Your task to perform on an android device: Go to CNN.com Image 0: 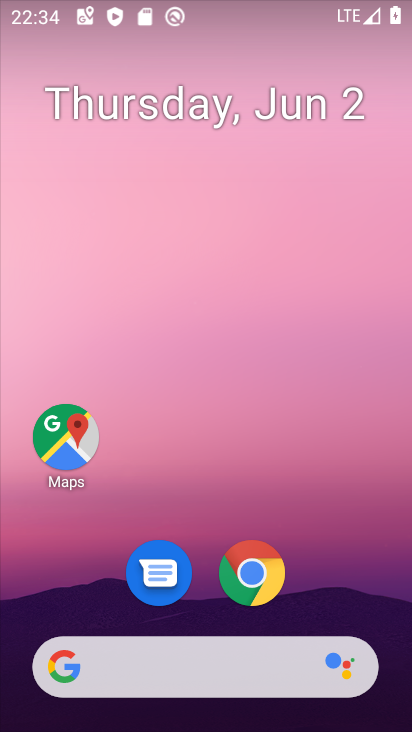
Step 0: click (241, 588)
Your task to perform on an android device: Go to CNN.com Image 1: 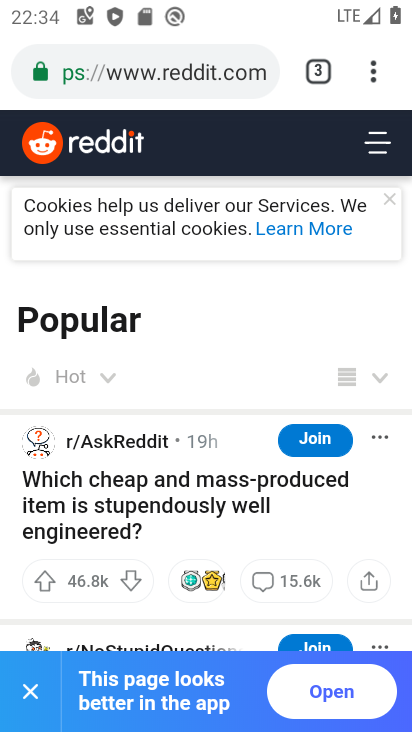
Step 1: click (322, 68)
Your task to perform on an android device: Go to CNN.com Image 2: 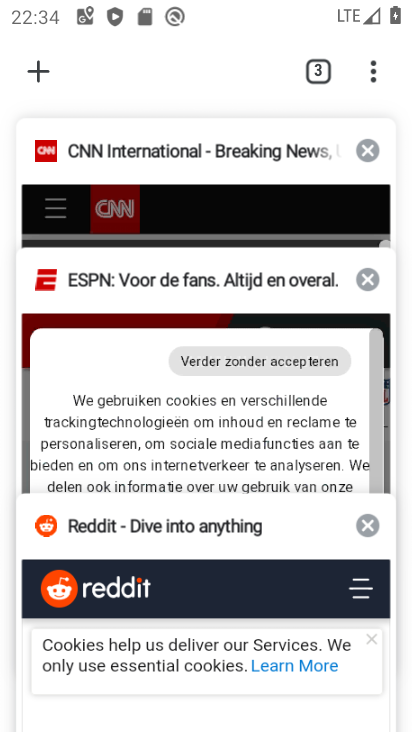
Step 2: click (246, 144)
Your task to perform on an android device: Go to CNN.com Image 3: 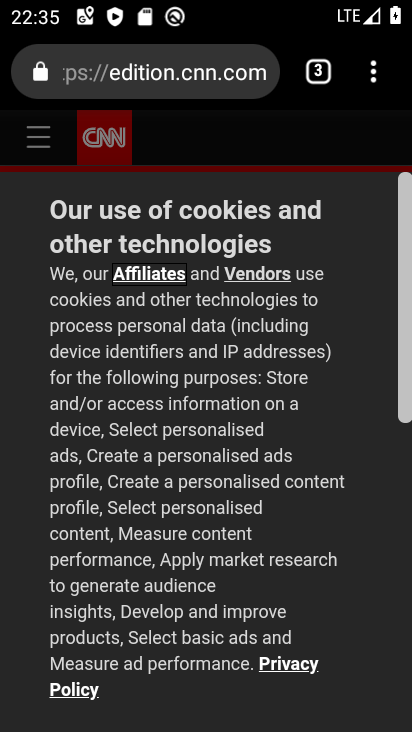
Step 3: task complete